Your task to perform on an android device: What's on my calendar tomorrow? Image 0: 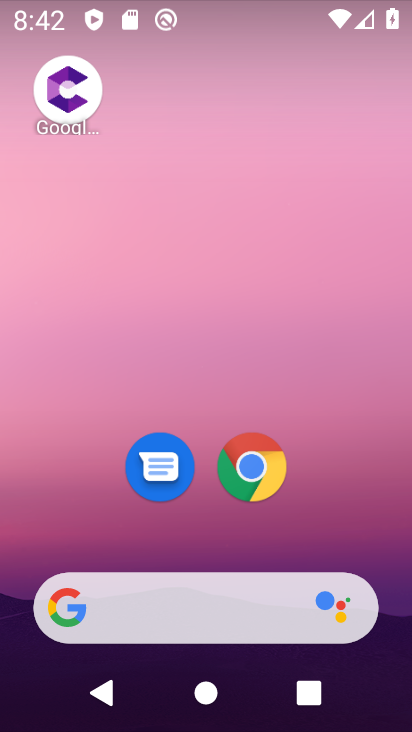
Step 0: drag from (325, 533) to (350, 66)
Your task to perform on an android device: What's on my calendar tomorrow? Image 1: 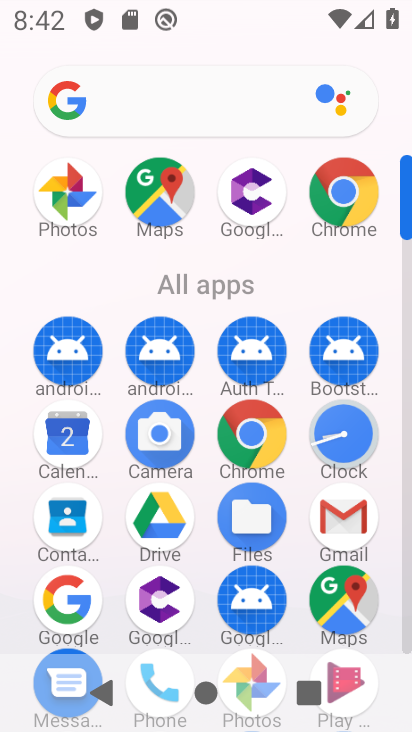
Step 1: click (68, 430)
Your task to perform on an android device: What's on my calendar tomorrow? Image 2: 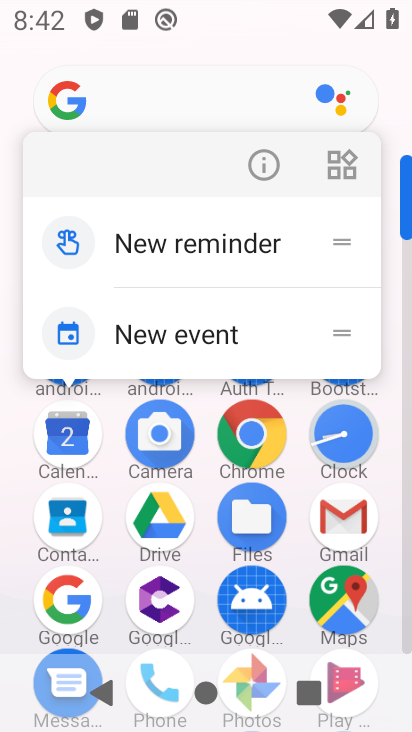
Step 2: click (68, 430)
Your task to perform on an android device: What's on my calendar tomorrow? Image 3: 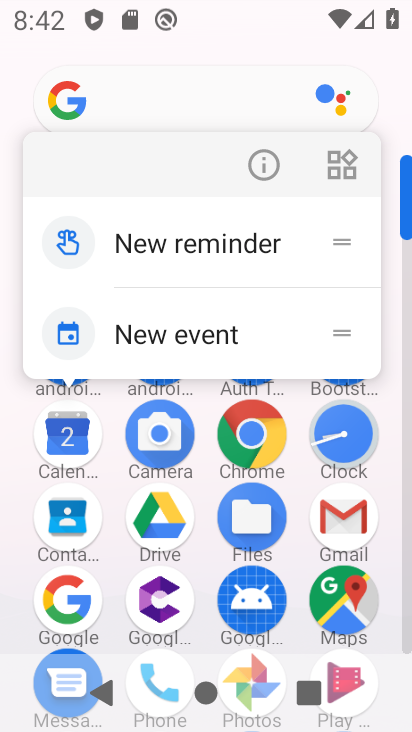
Step 3: click (68, 430)
Your task to perform on an android device: What's on my calendar tomorrow? Image 4: 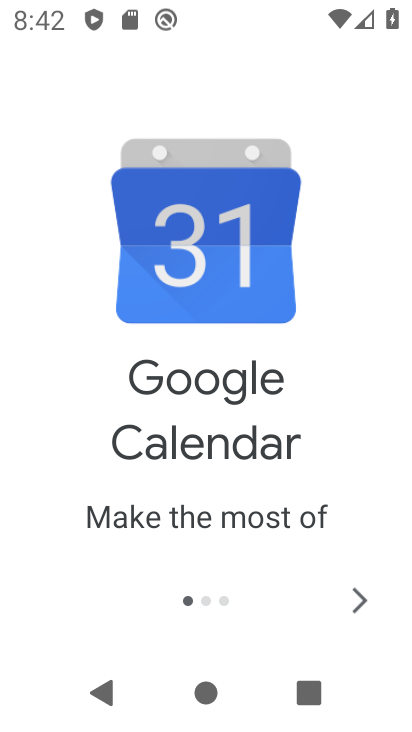
Step 4: click (341, 579)
Your task to perform on an android device: What's on my calendar tomorrow? Image 5: 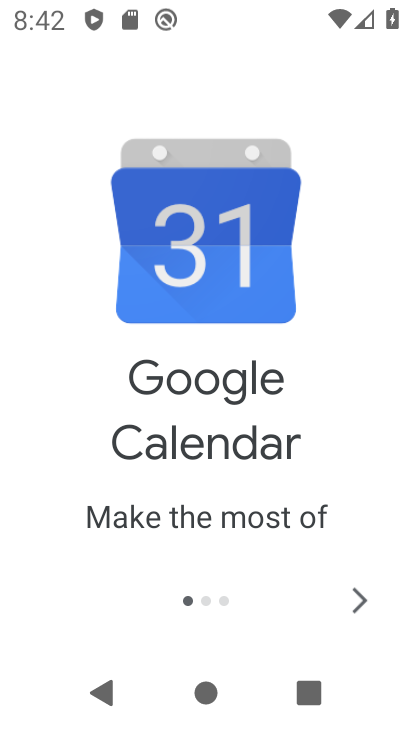
Step 5: click (347, 593)
Your task to perform on an android device: What's on my calendar tomorrow? Image 6: 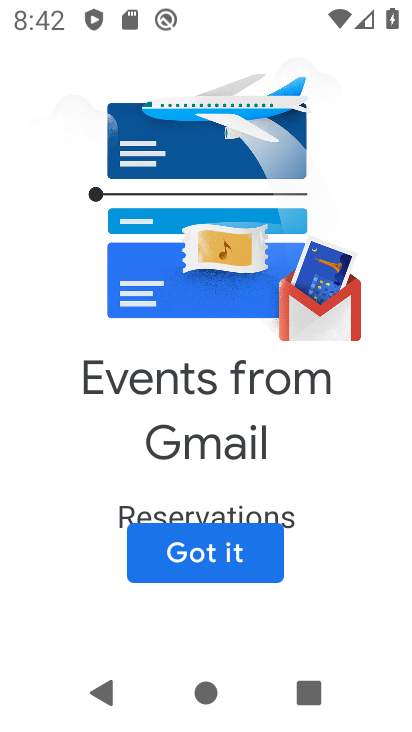
Step 6: click (223, 575)
Your task to perform on an android device: What's on my calendar tomorrow? Image 7: 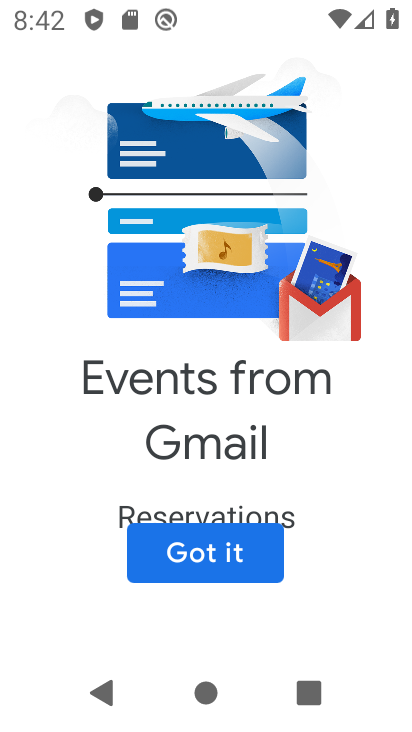
Step 7: click (216, 556)
Your task to perform on an android device: What's on my calendar tomorrow? Image 8: 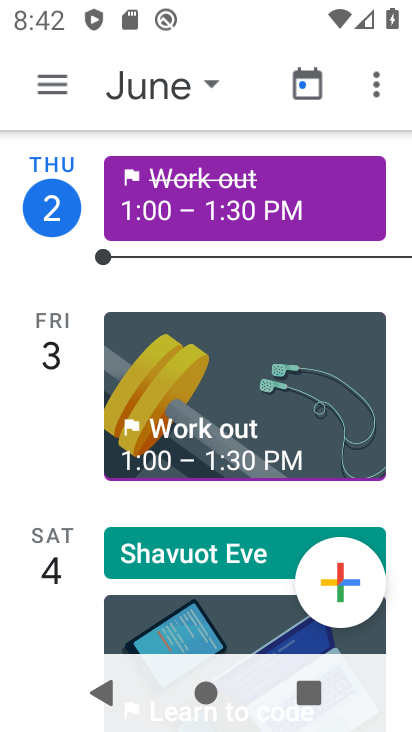
Step 8: click (152, 102)
Your task to perform on an android device: What's on my calendar tomorrow? Image 9: 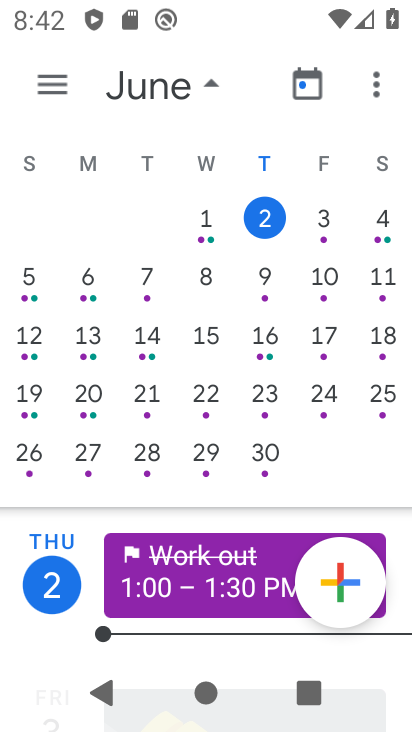
Step 9: click (326, 232)
Your task to perform on an android device: What's on my calendar tomorrow? Image 10: 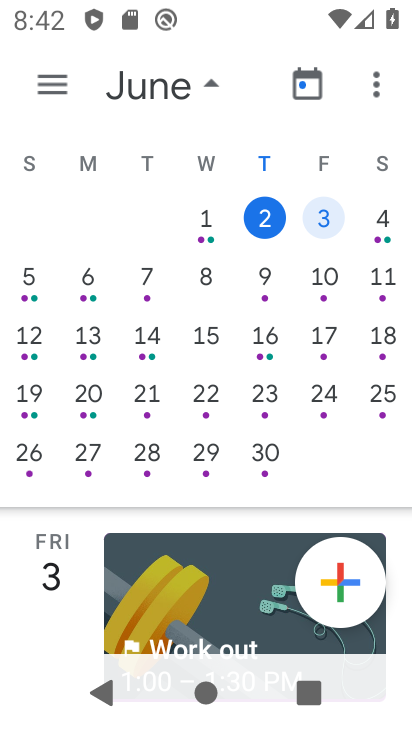
Step 10: task complete